Your task to perform on an android device: Do I have any events today? Image 0: 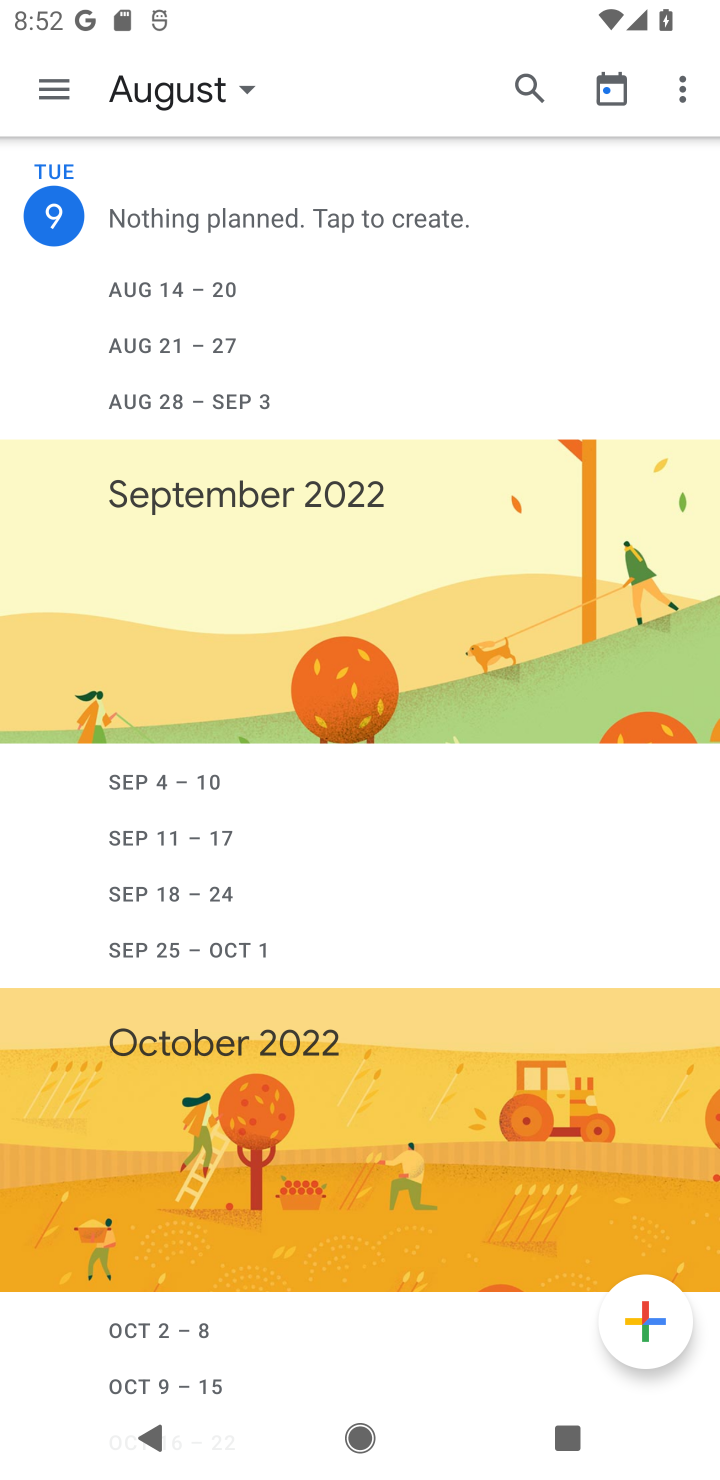
Step 0: press home button
Your task to perform on an android device: Do I have any events today? Image 1: 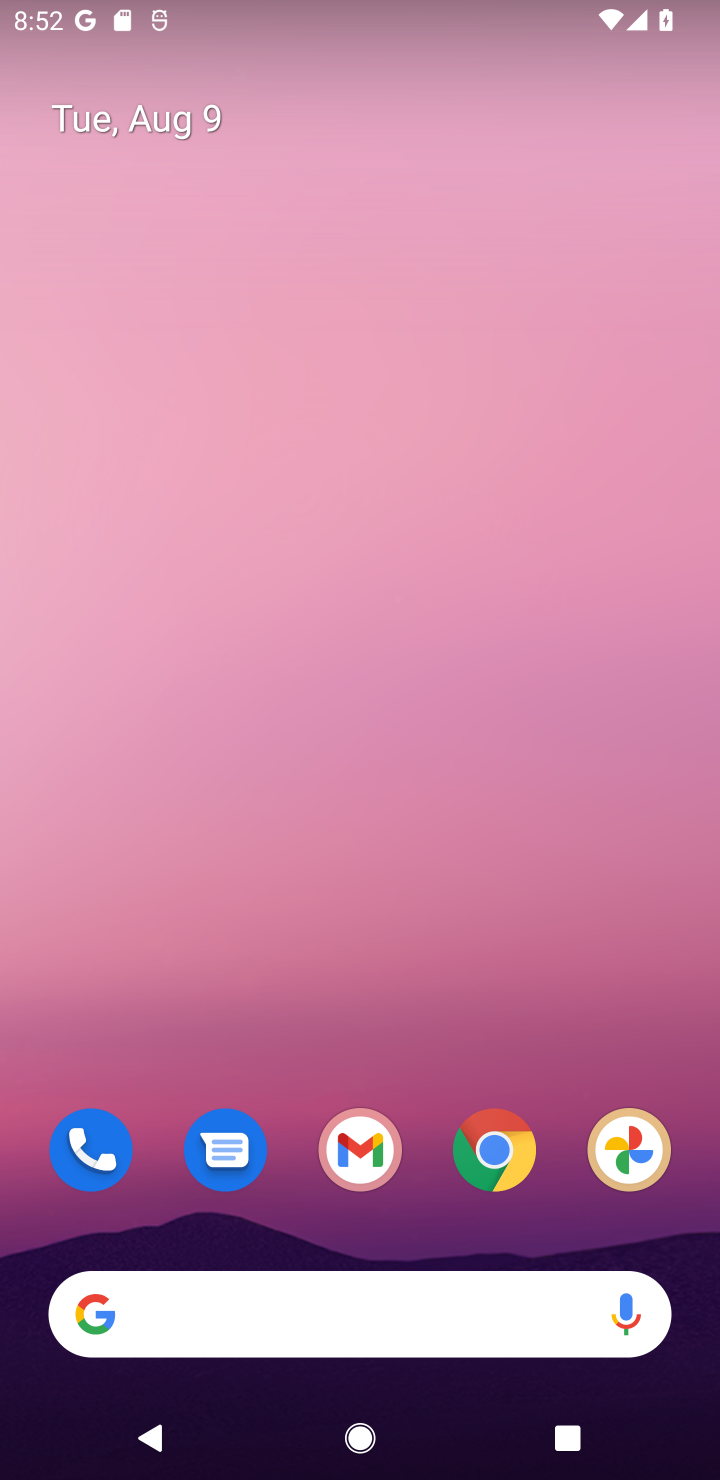
Step 1: drag from (372, 782) to (371, 0)
Your task to perform on an android device: Do I have any events today? Image 2: 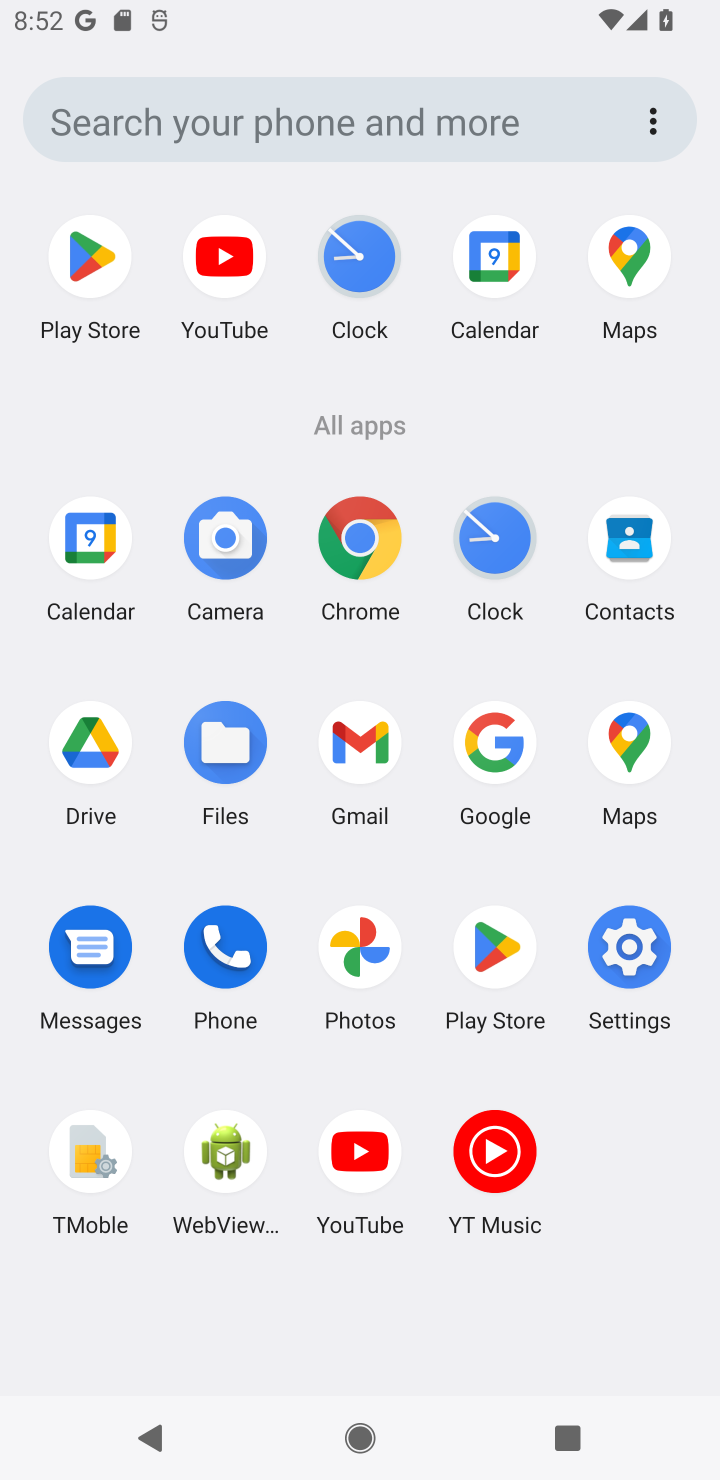
Step 2: click (120, 590)
Your task to perform on an android device: Do I have any events today? Image 3: 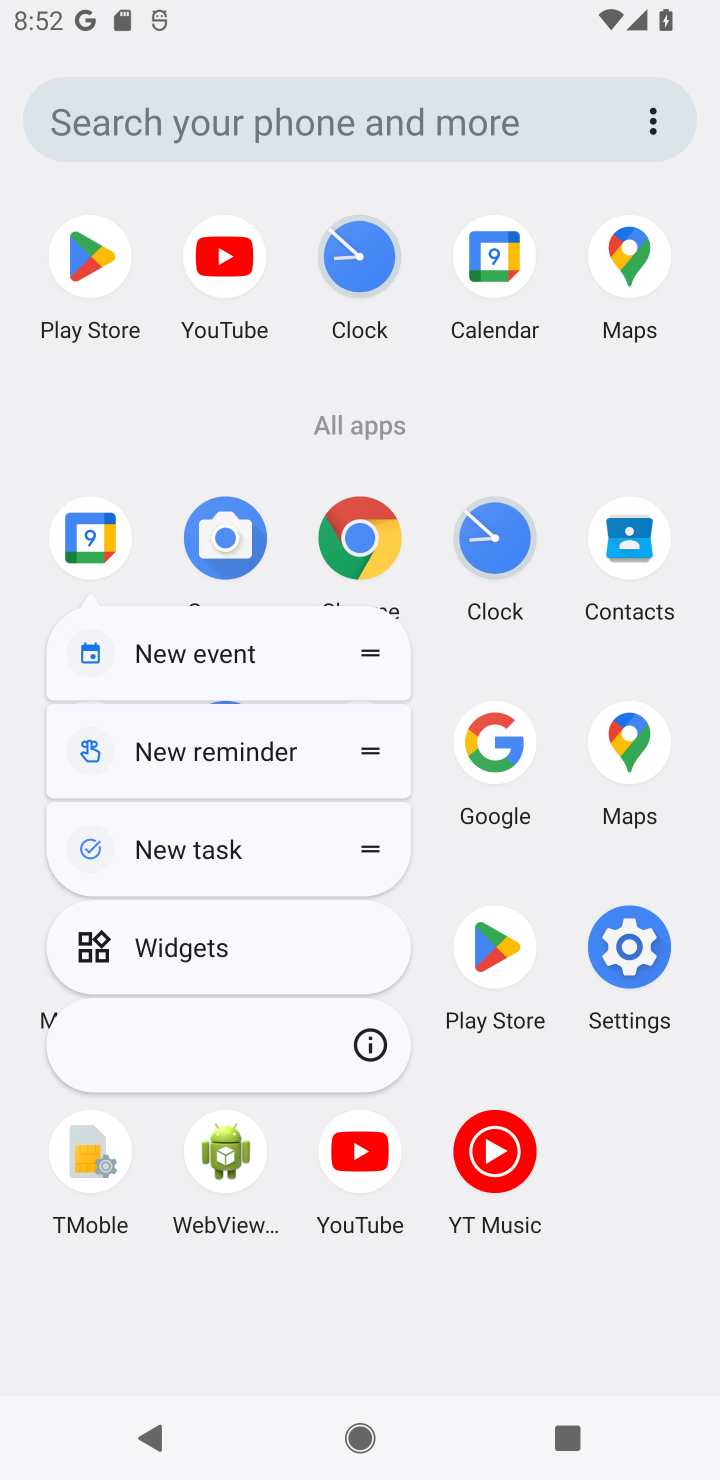
Step 3: click (615, 1168)
Your task to perform on an android device: Do I have any events today? Image 4: 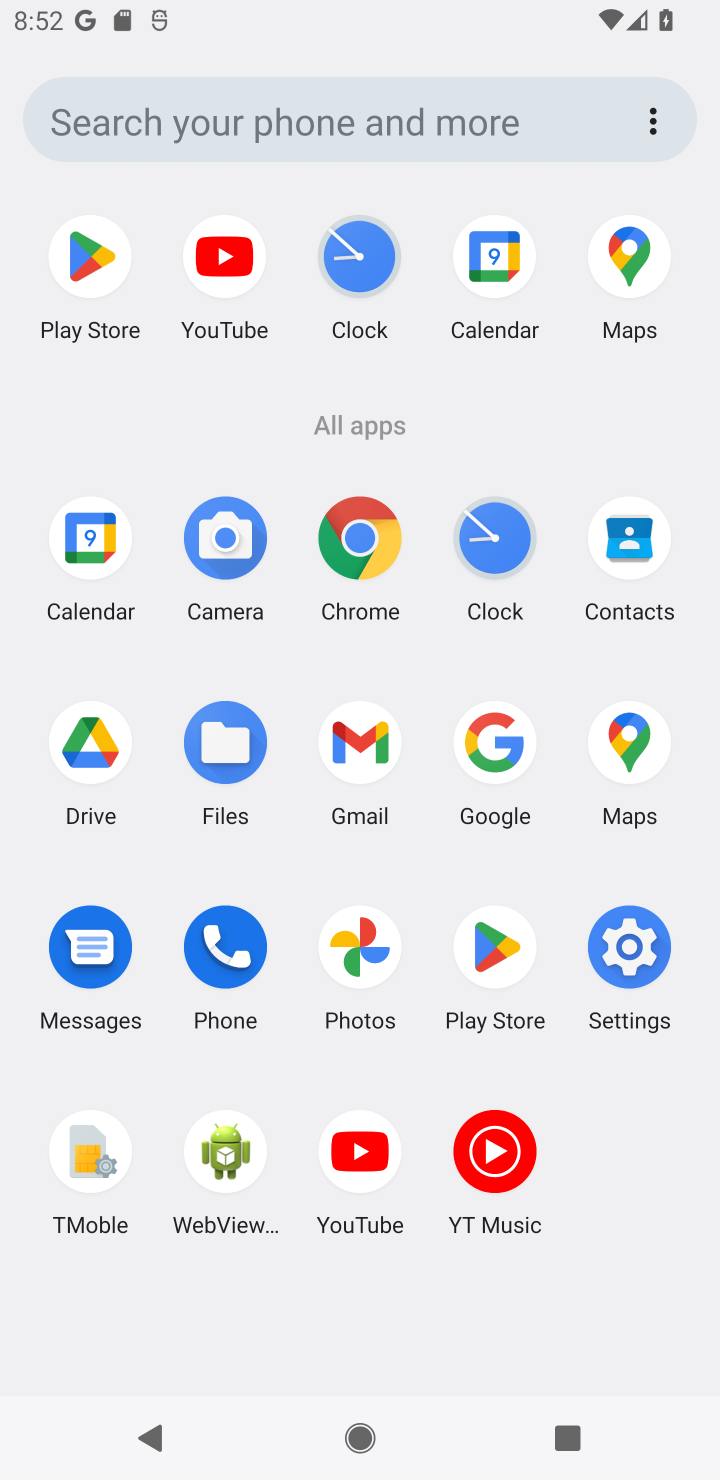
Step 4: click (92, 607)
Your task to perform on an android device: Do I have any events today? Image 5: 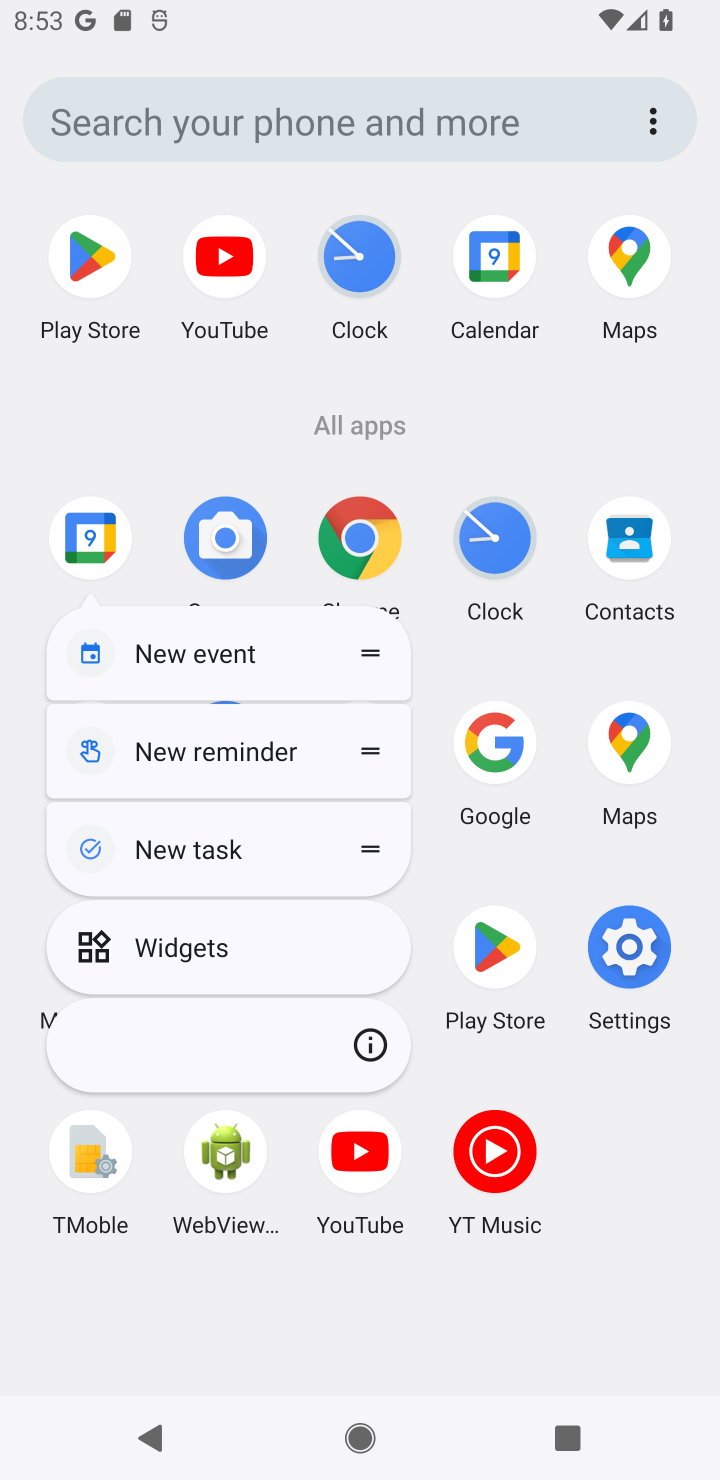
Step 5: click (88, 557)
Your task to perform on an android device: Do I have any events today? Image 6: 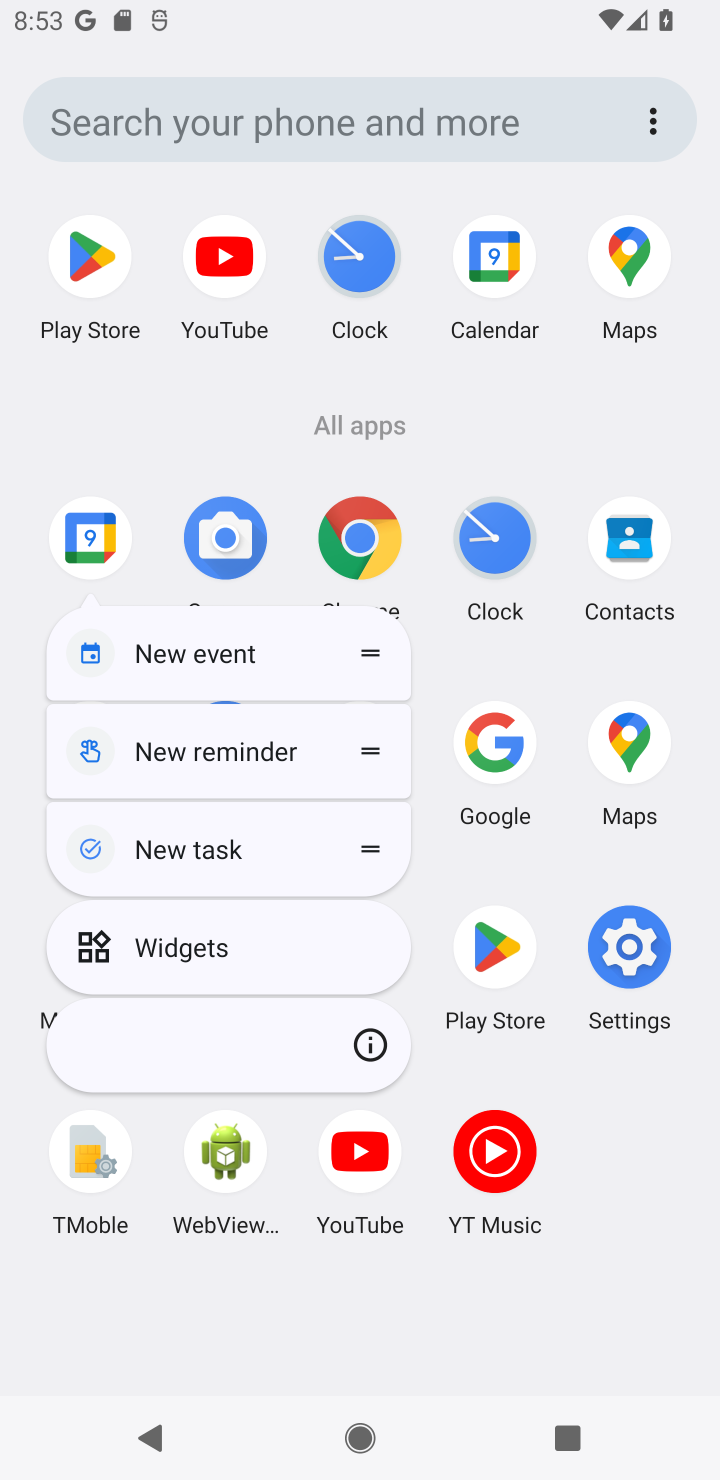
Step 6: click (88, 557)
Your task to perform on an android device: Do I have any events today? Image 7: 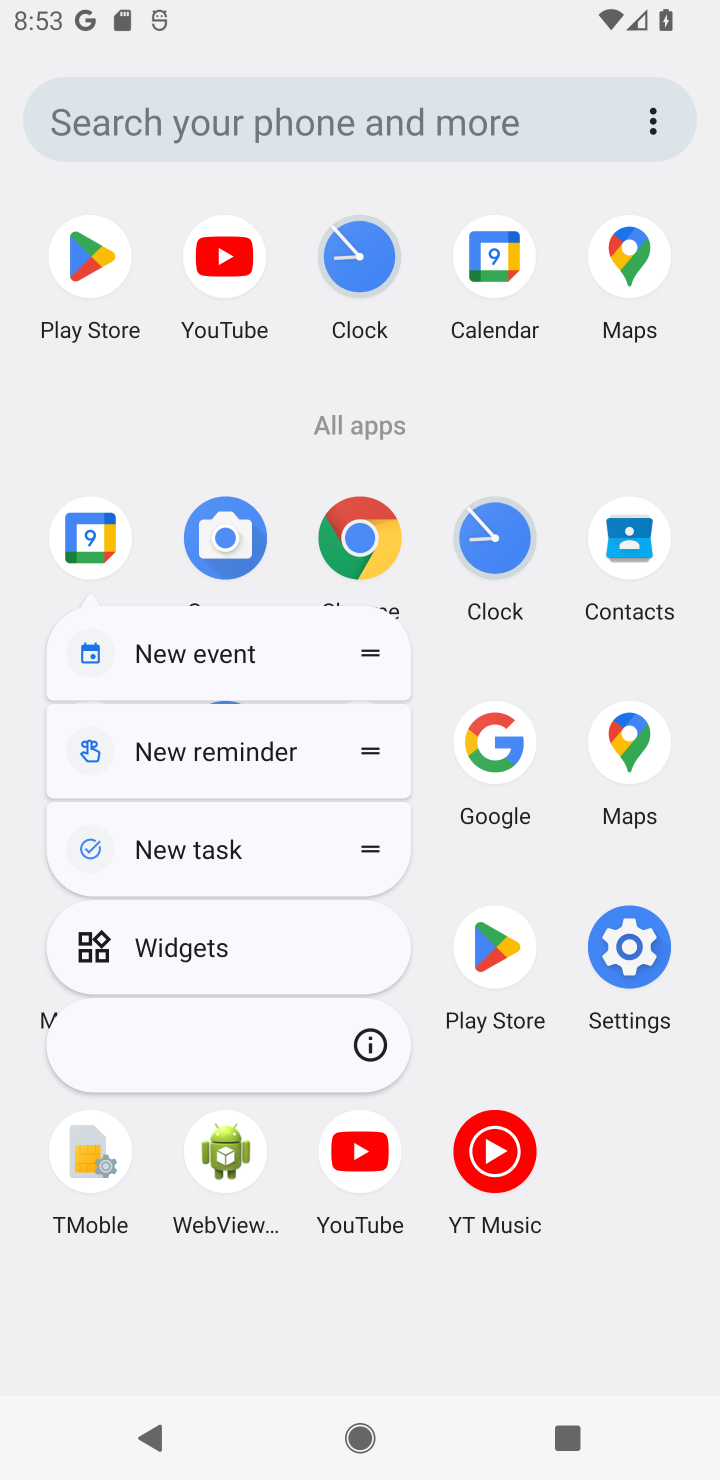
Step 7: click (112, 544)
Your task to perform on an android device: Do I have any events today? Image 8: 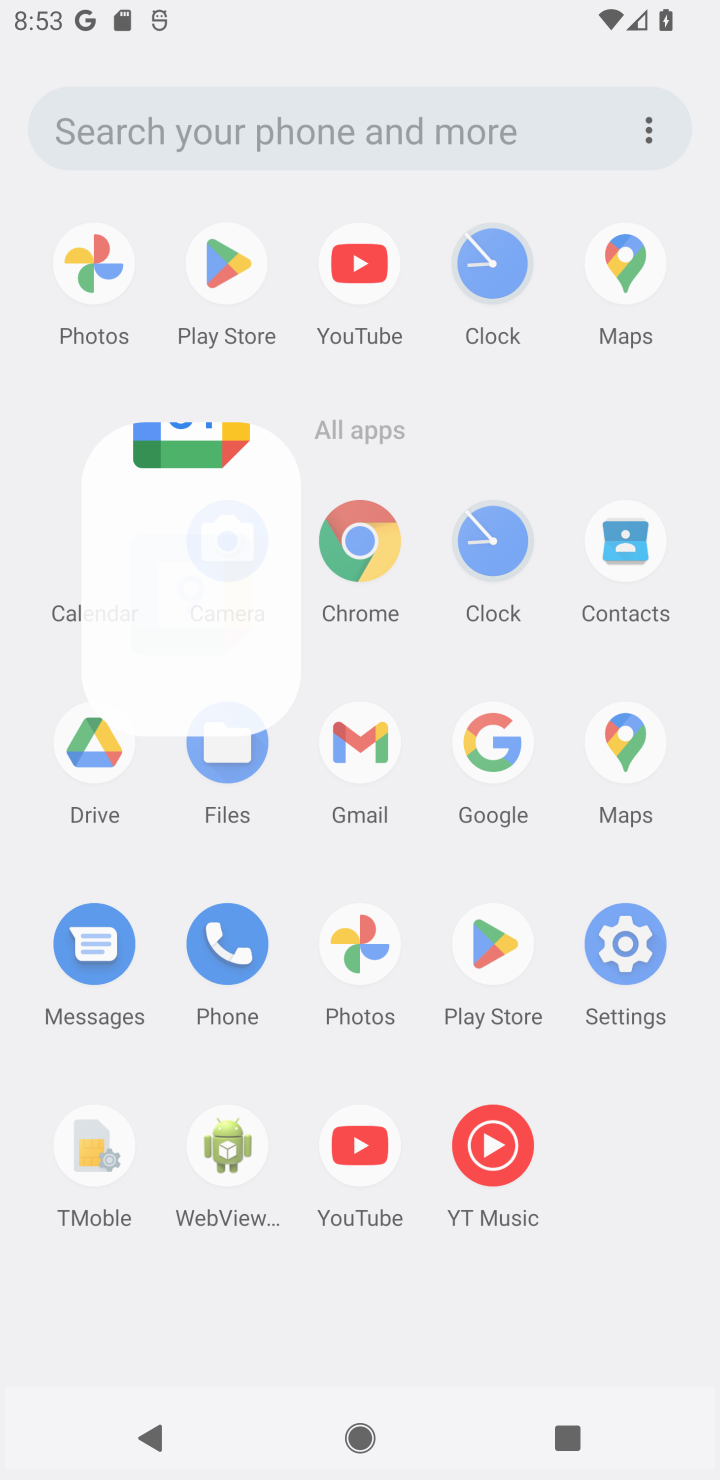
Step 8: click (112, 544)
Your task to perform on an android device: Do I have any events today? Image 9: 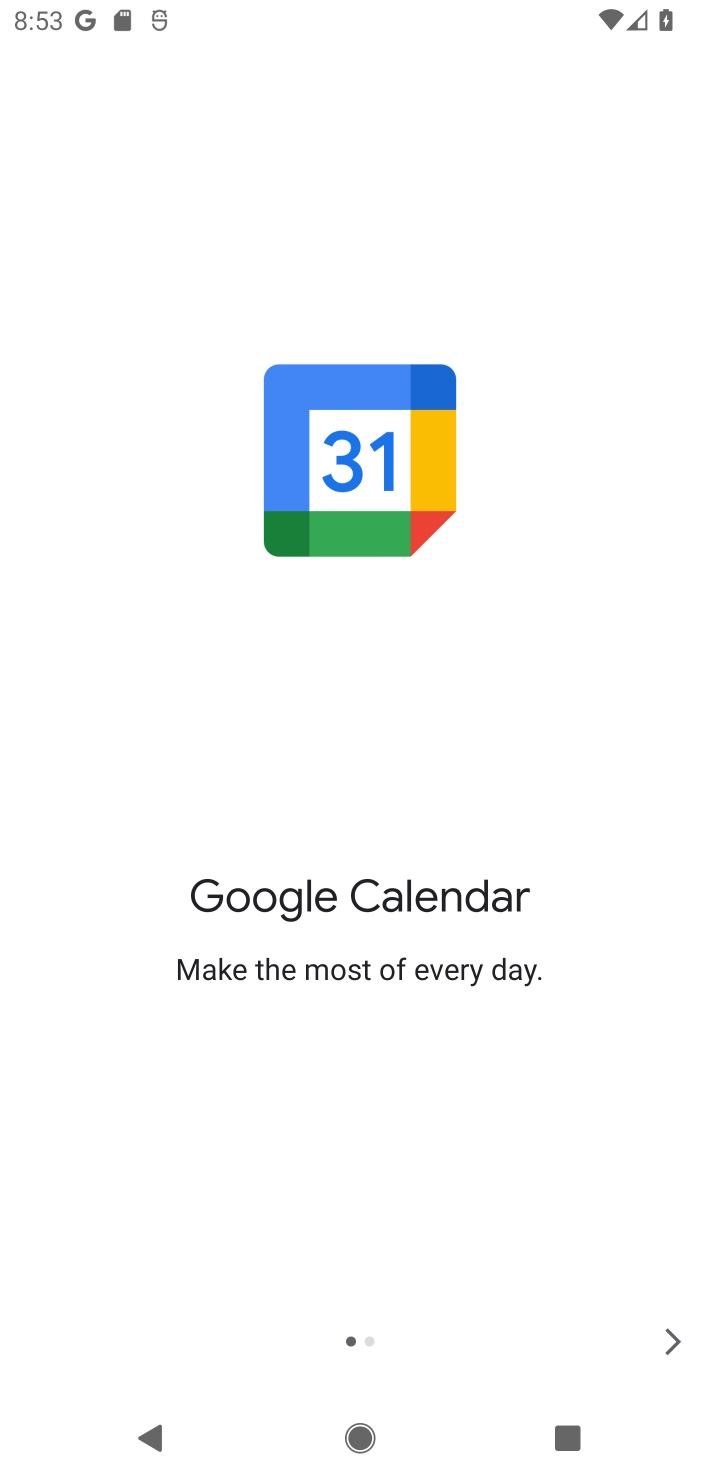
Step 9: click (679, 1348)
Your task to perform on an android device: Do I have any events today? Image 10: 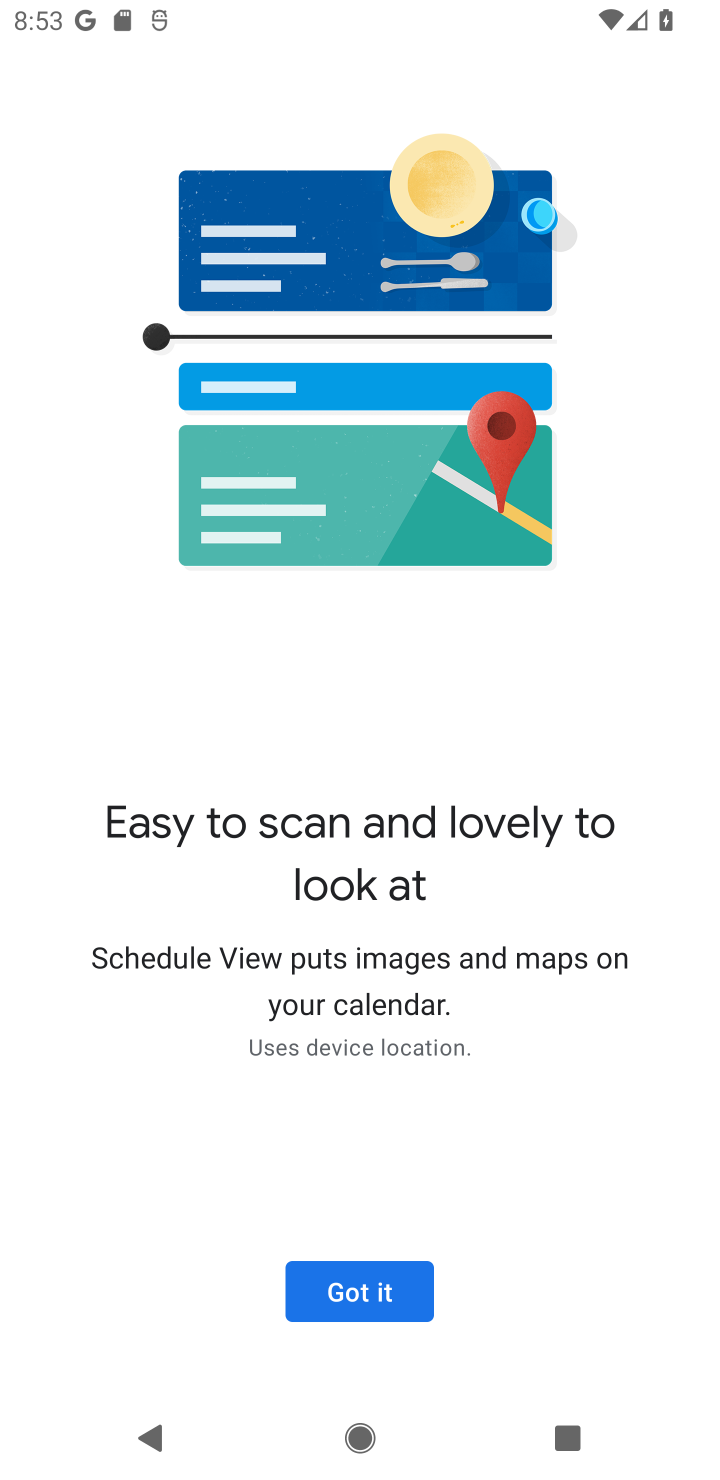
Step 10: click (375, 1283)
Your task to perform on an android device: Do I have any events today? Image 11: 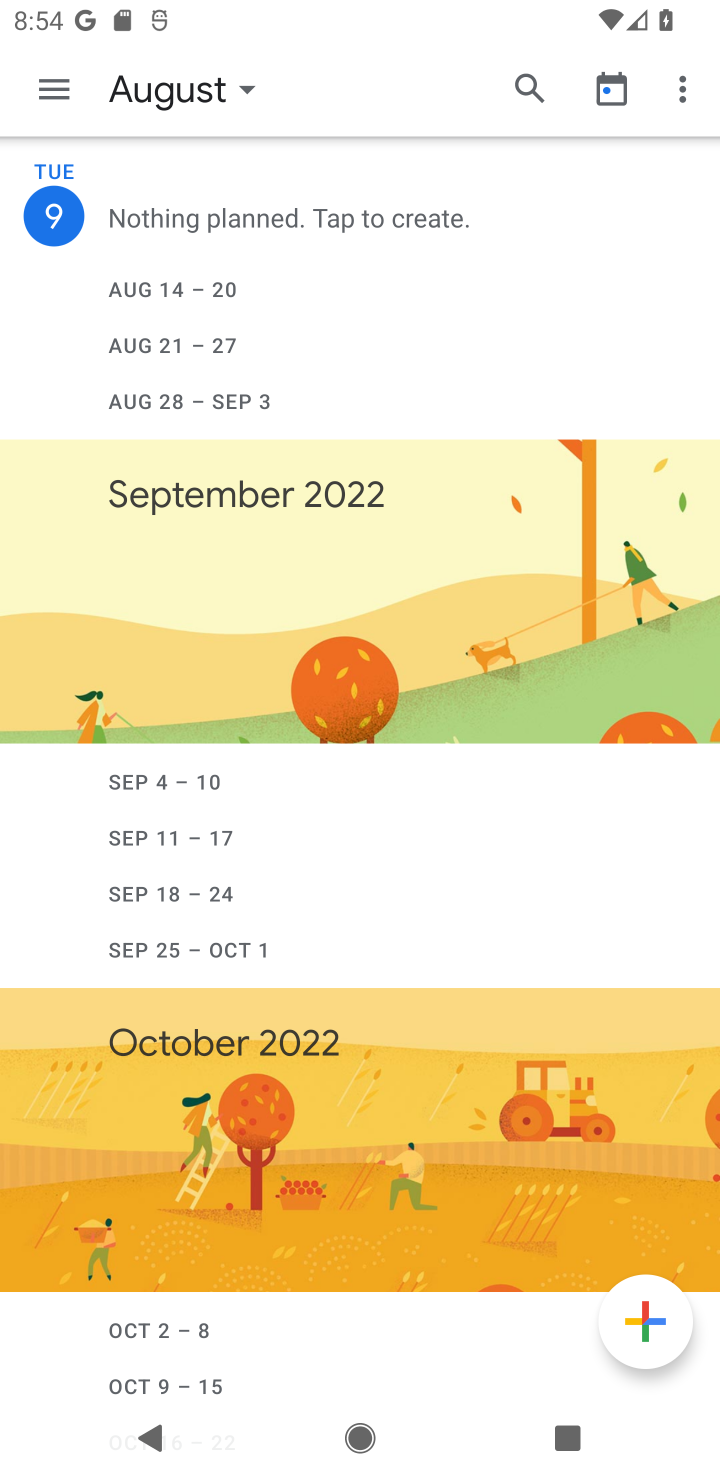
Step 11: task complete